Your task to perform on an android device: Search for Mexican restaurants on Maps Image 0: 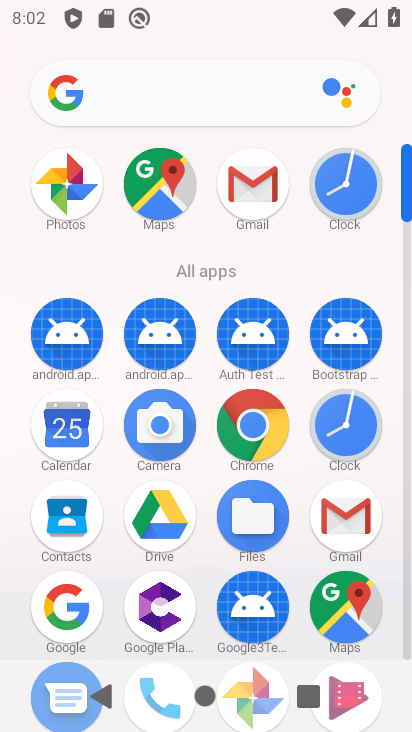
Step 0: click (153, 203)
Your task to perform on an android device: Search for Mexican restaurants on Maps Image 1: 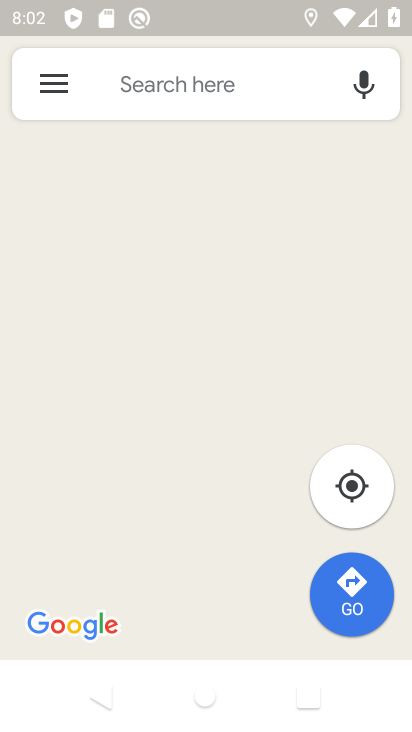
Step 1: click (185, 94)
Your task to perform on an android device: Search for Mexican restaurants on Maps Image 2: 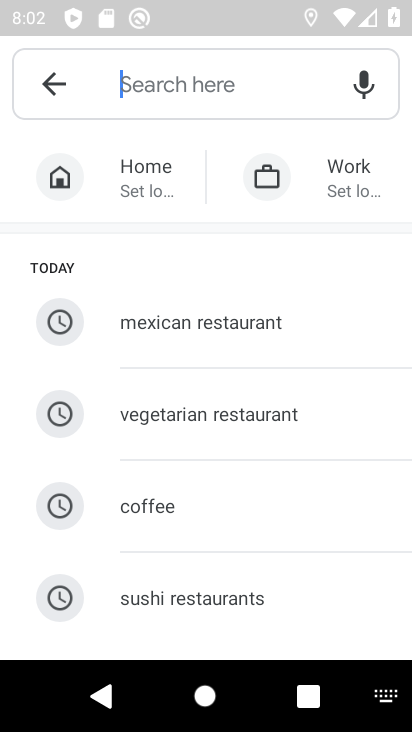
Step 2: type "mexican restaurants"
Your task to perform on an android device: Search for Mexican restaurants on Maps Image 3: 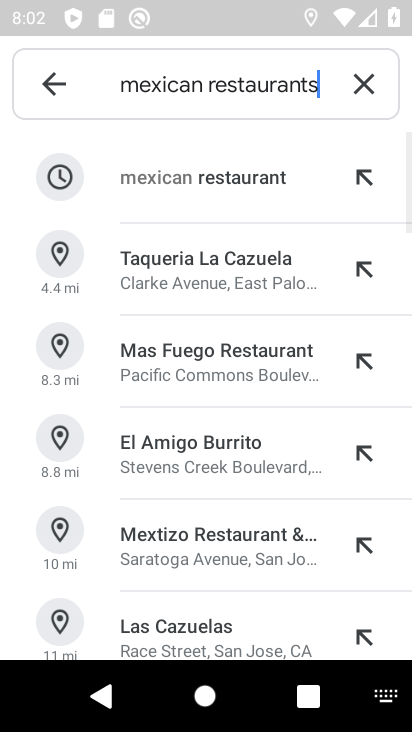
Step 3: click (241, 178)
Your task to perform on an android device: Search for Mexican restaurants on Maps Image 4: 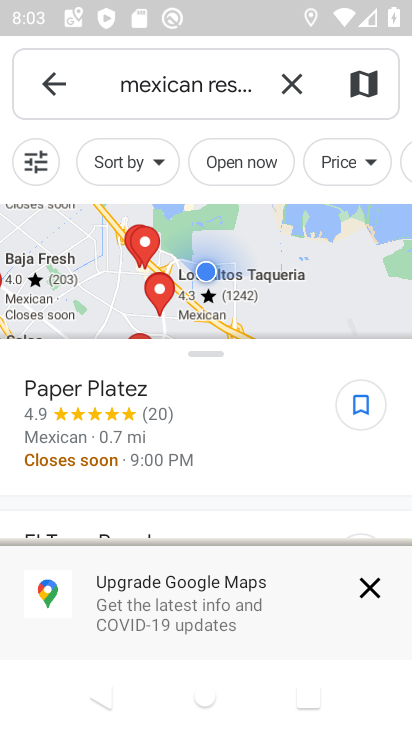
Step 4: task complete